Your task to perform on an android device: Go to settings Image 0: 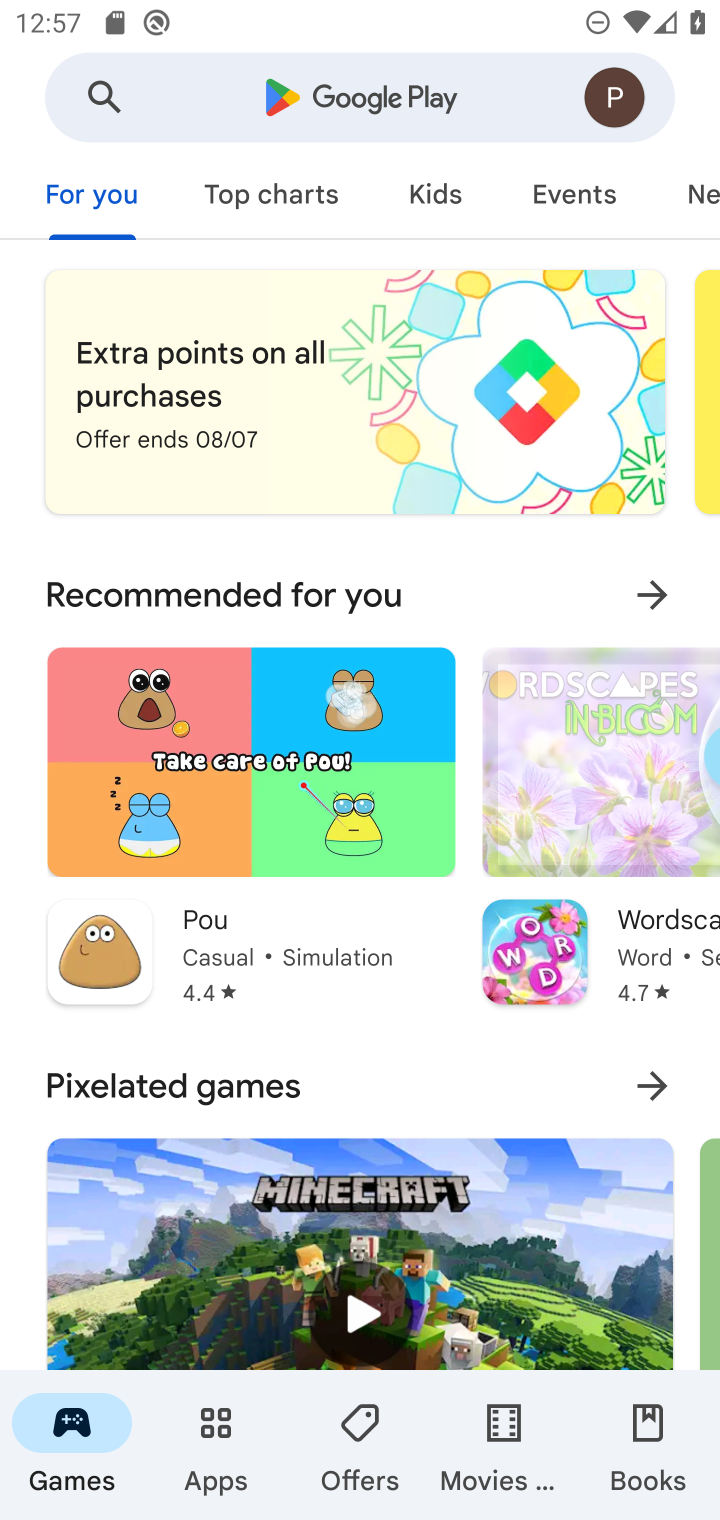
Step 0: press home button
Your task to perform on an android device: Go to settings Image 1: 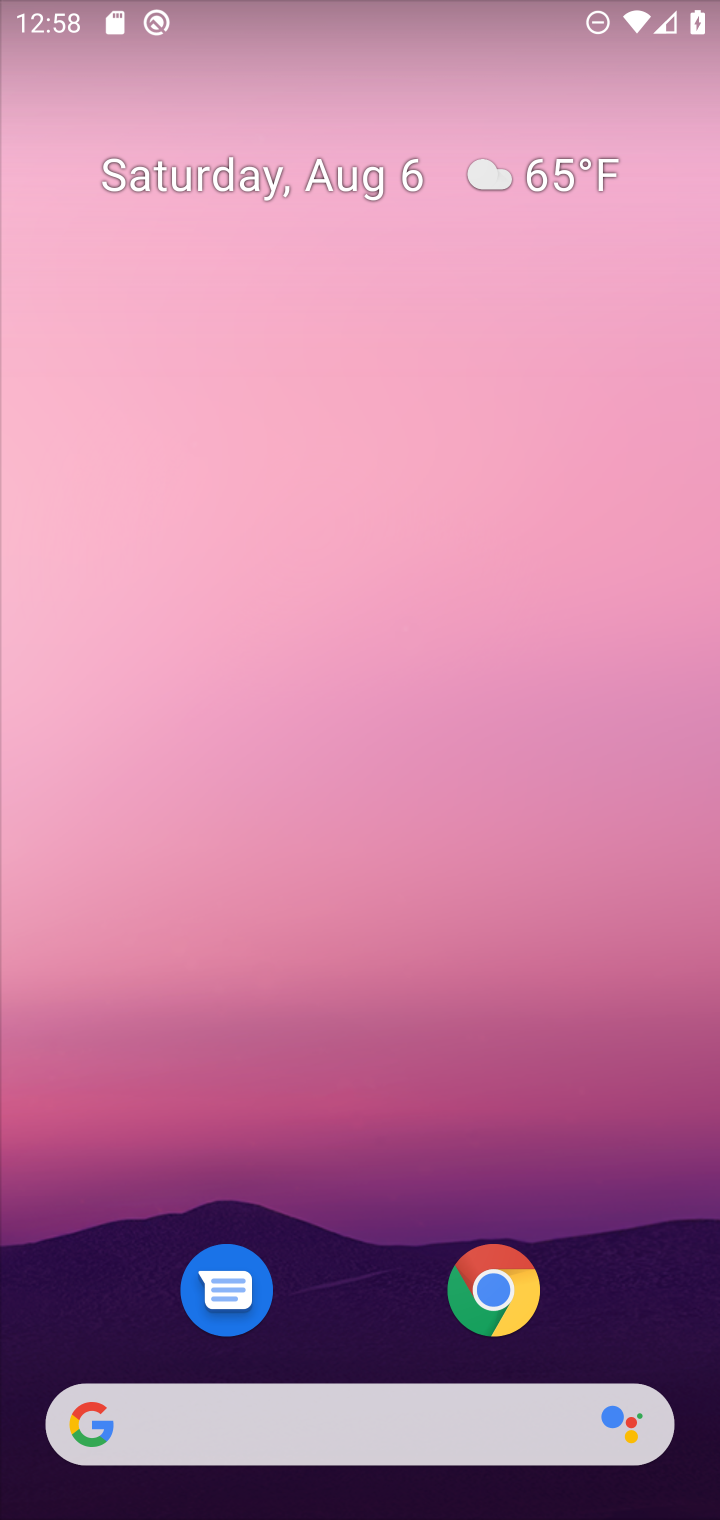
Step 1: click (261, 10)
Your task to perform on an android device: Go to settings Image 2: 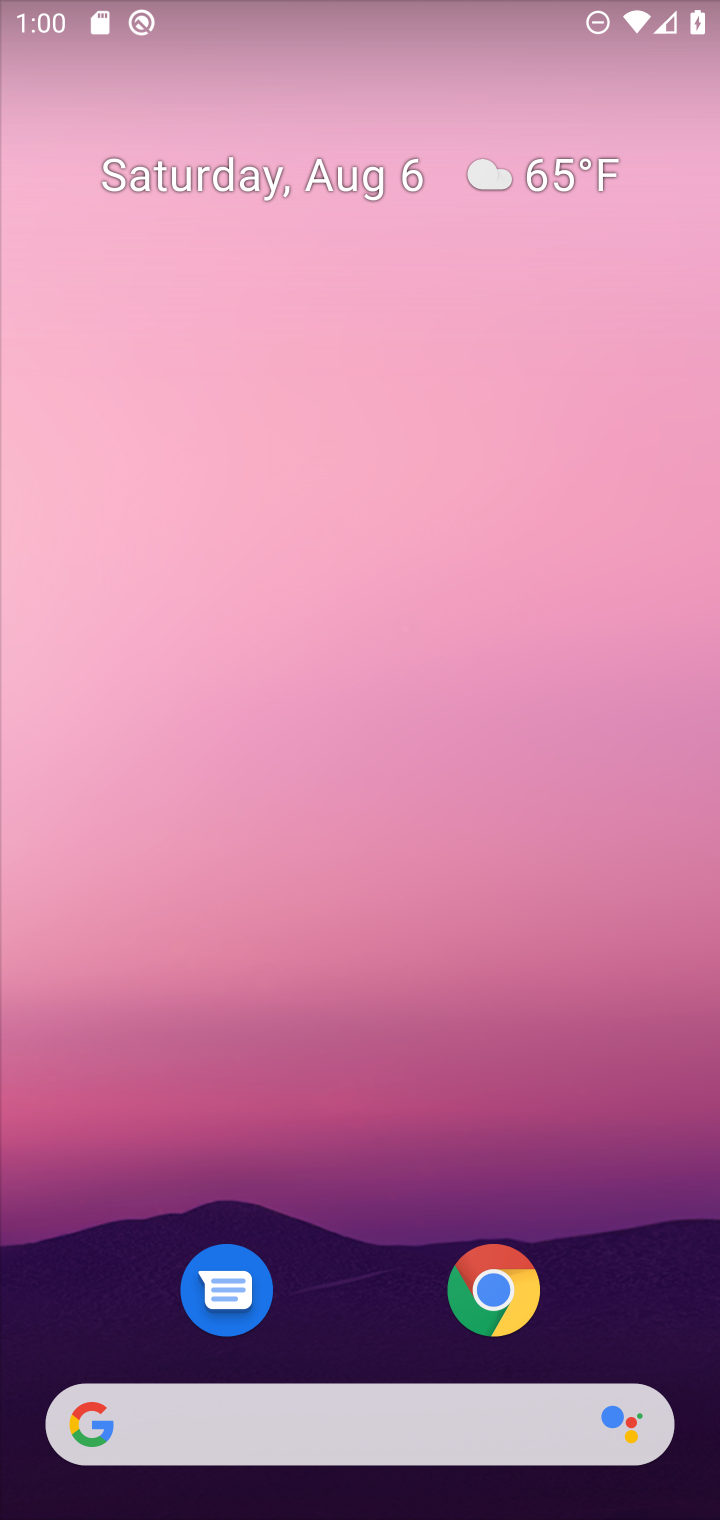
Step 2: drag from (336, 696) to (570, 90)
Your task to perform on an android device: Go to settings Image 3: 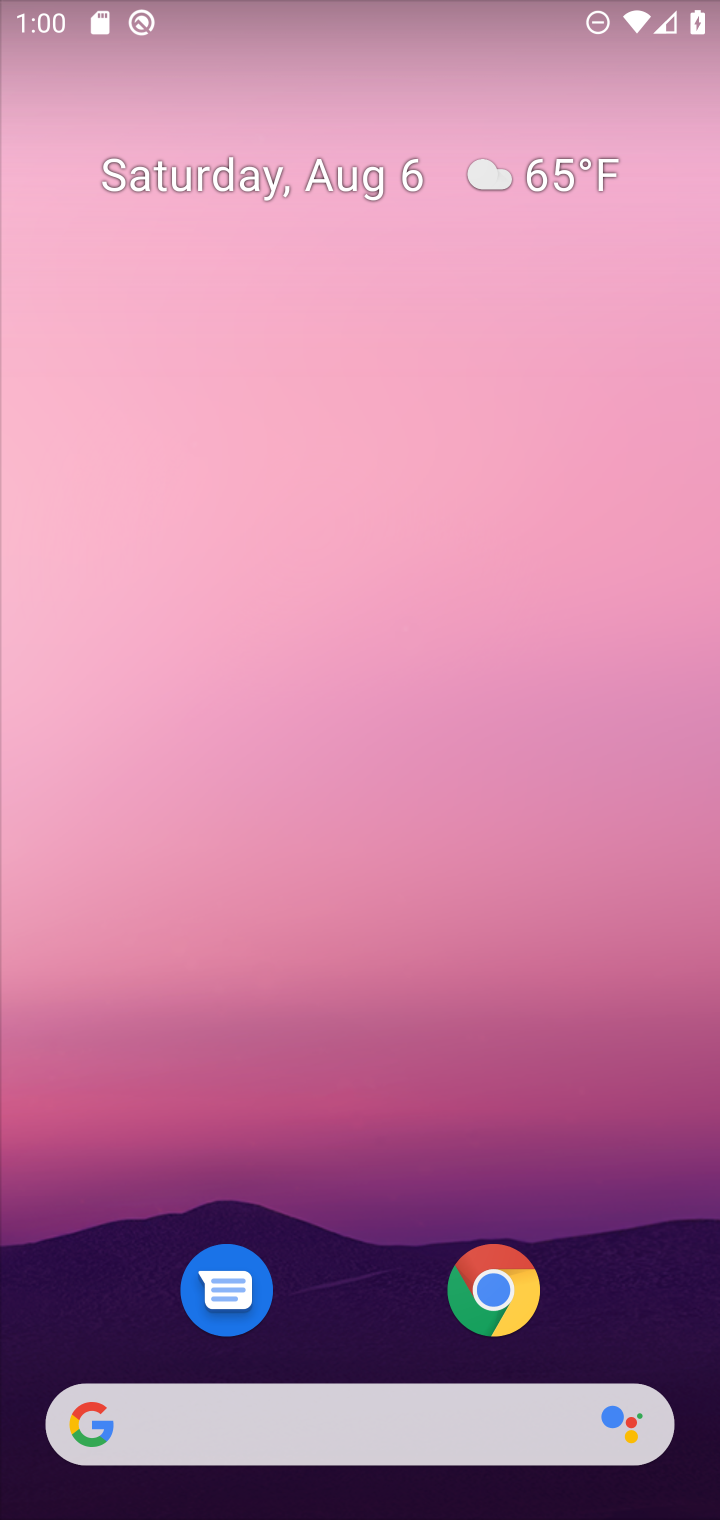
Step 3: drag from (375, 1328) to (351, 7)
Your task to perform on an android device: Go to settings Image 4: 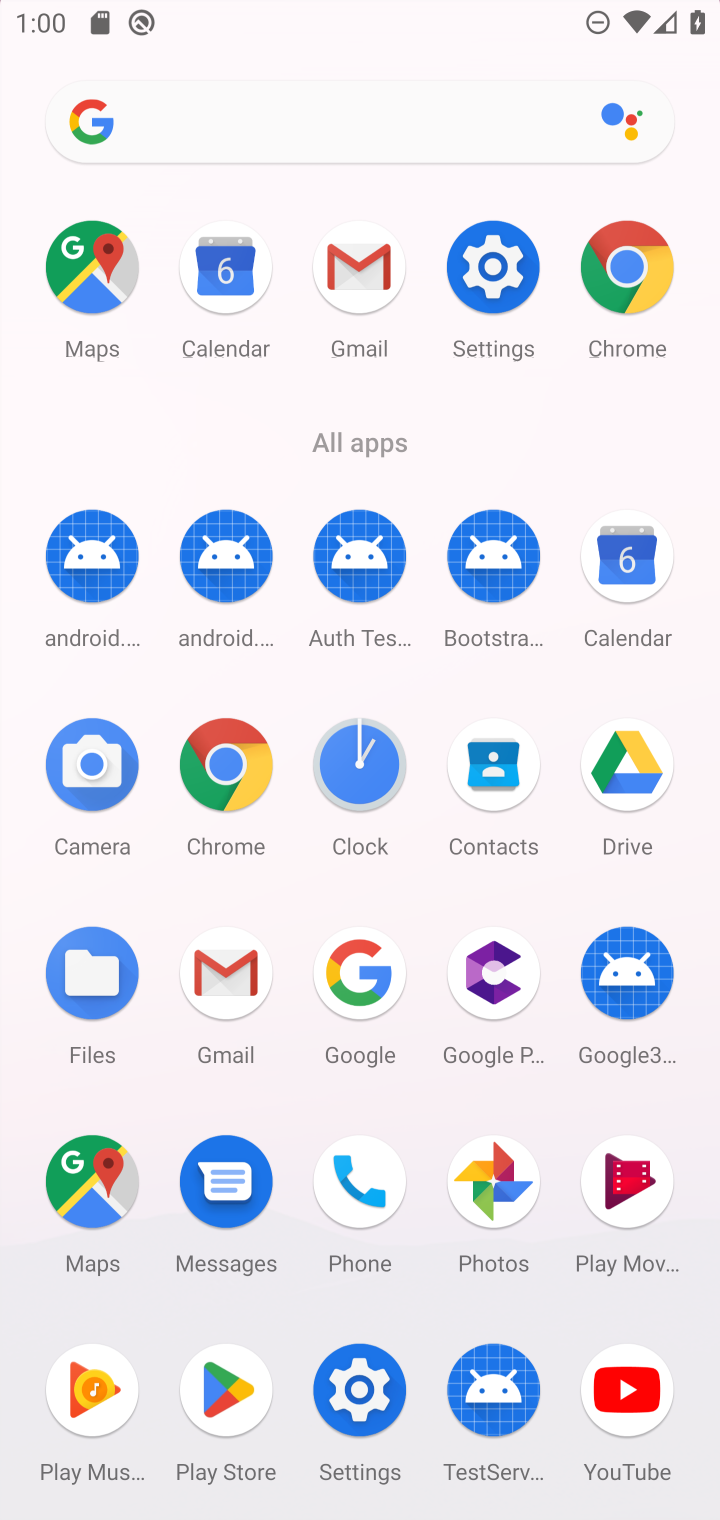
Step 4: click (491, 286)
Your task to perform on an android device: Go to settings Image 5: 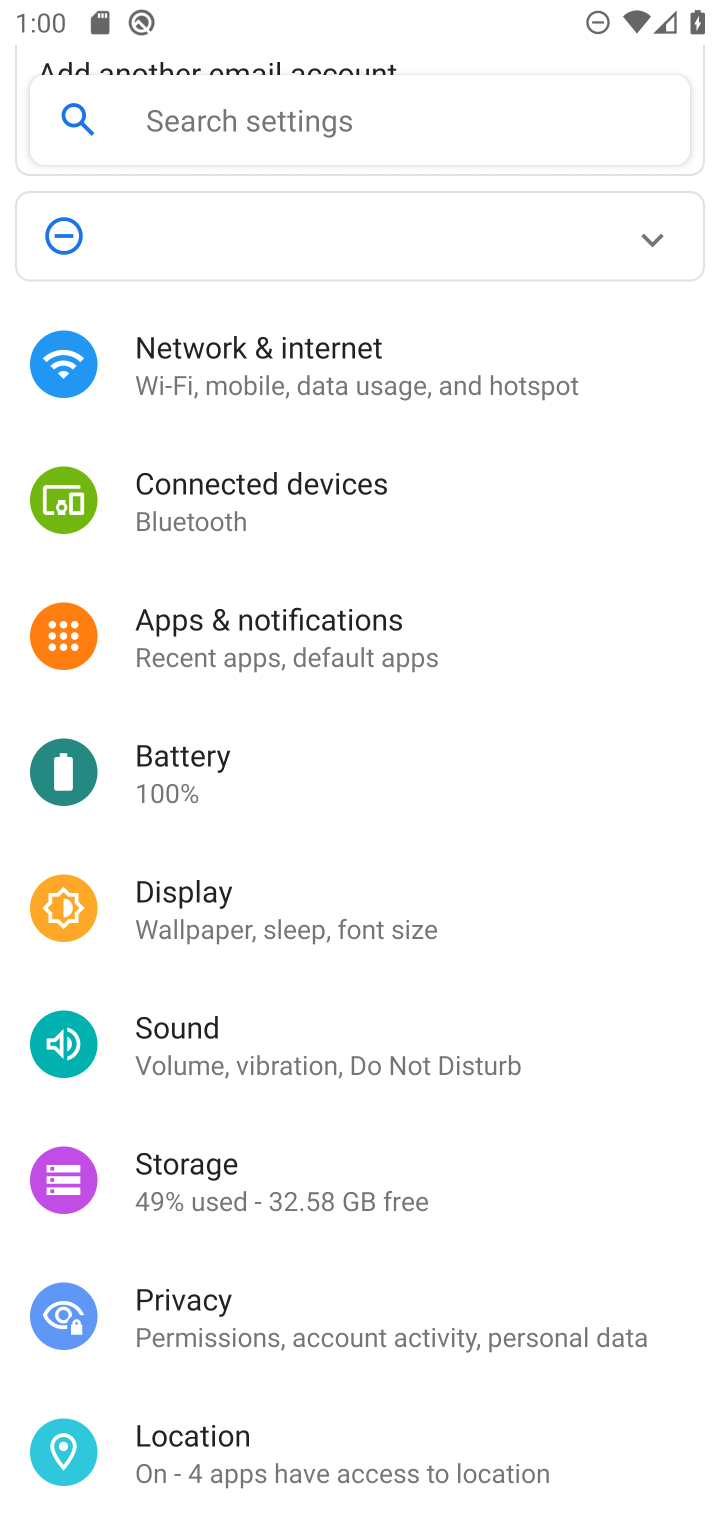
Step 5: task complete